Your task to perform on an android device: check google app version Image 0: 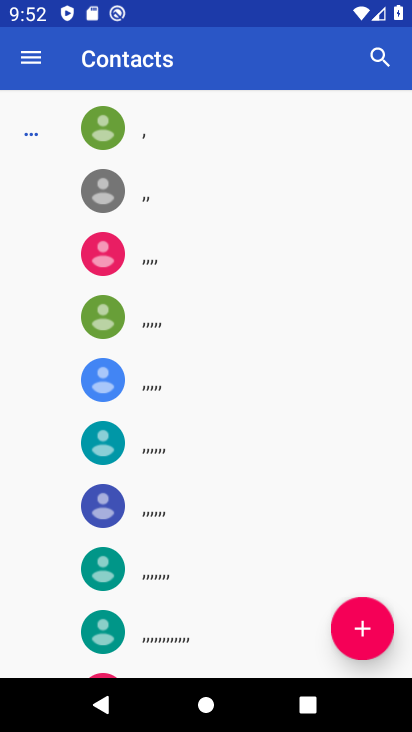
Step 0: press home button
Your task to perform on an android device: check google app version Image 1: 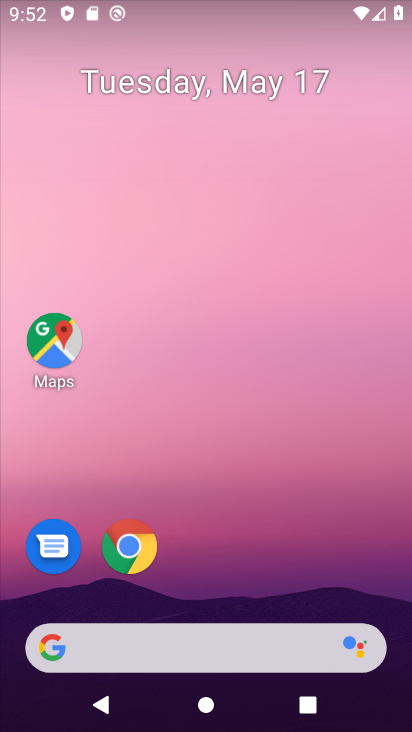
Step 1: drag from (243, 597) to (272, 219)
Your task to perform on an android device: check google app version Image 2: 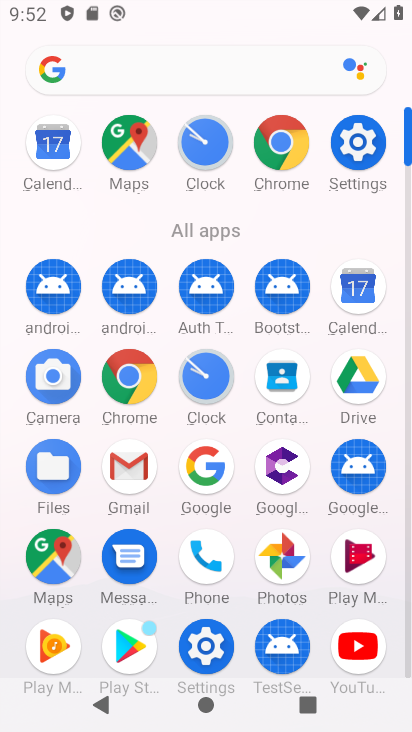
Step 2: click (214, 463)
Your task to perform on an android device: check google app version Image 3: 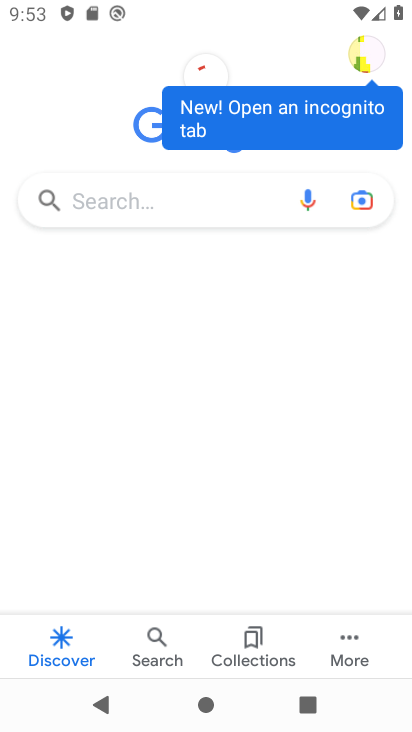
Step 3: click (360, 646)
Your task to perform on an android device: check google app version Image 4: 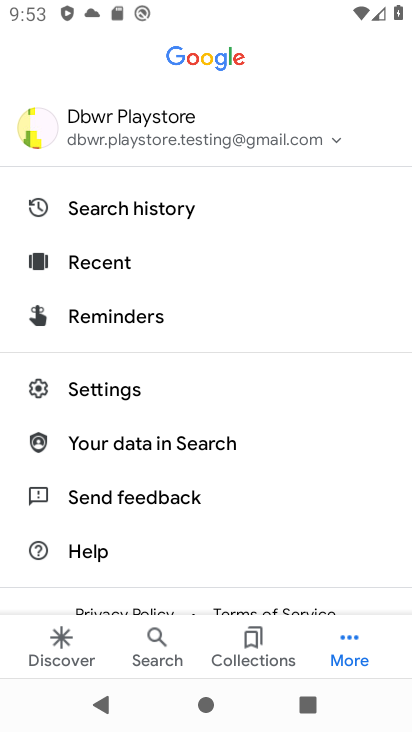
Step 4: drag from (133, 544) to (175, 357)
Your task to perform on an android device: check google app version Image 5: 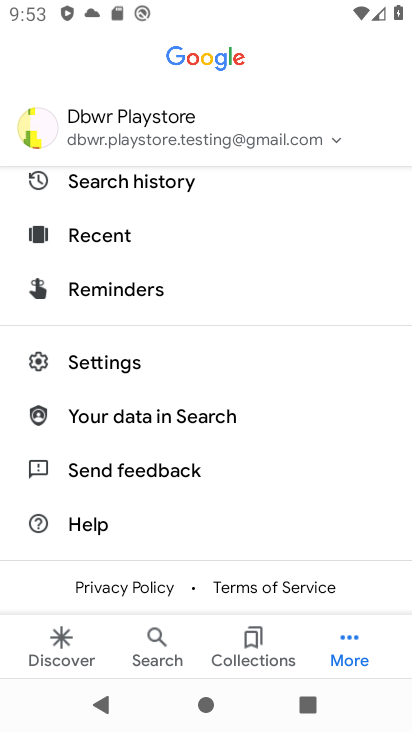
Step 5: click (114, 360)
Your task to perform on an android device: check google app version Image 6: 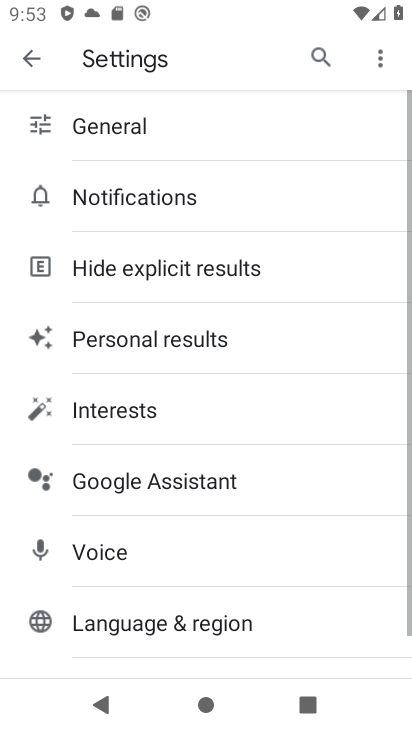
Step 6: drag from (160, 596) to (188, 241)
Your task to perform on an android device: check google app version Image 7: 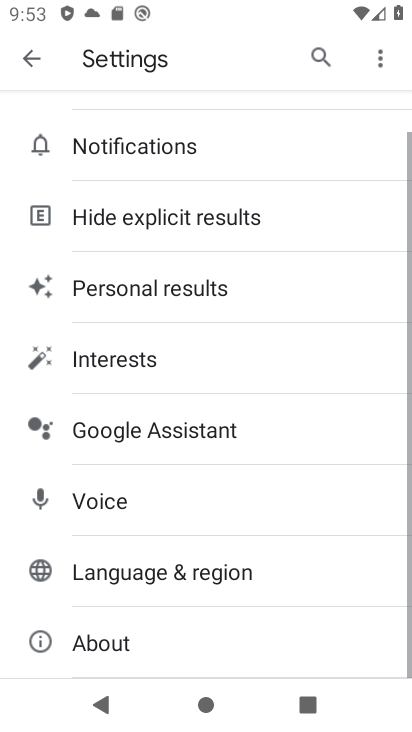
Step 7: click (142, 647)
Your task to perform on an android device: check google app version Image 8: 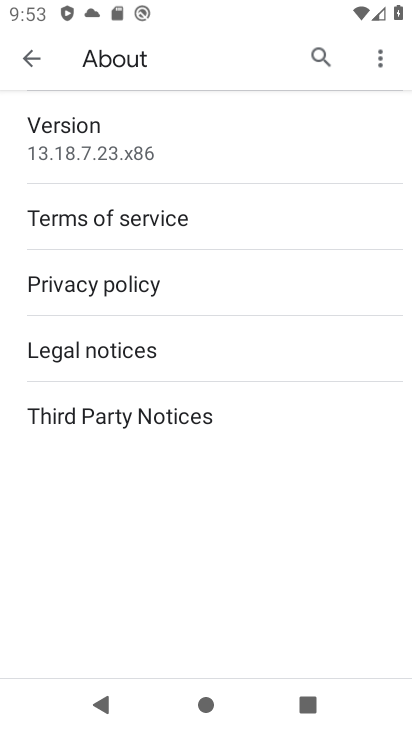
Step 8: task complete